Your task to perform on an android device: clear all cookies in the chrome app Image 0: 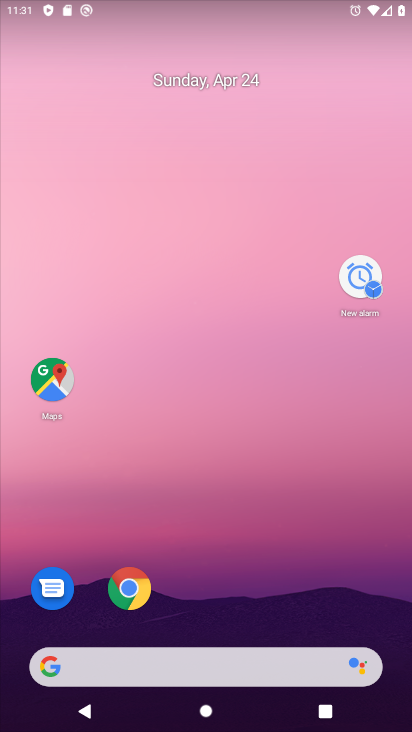
Step 0: drag from (286, 213) to (313, 109)
Your task to perform on an android device: clear all cookies in the chrome app Image 1: 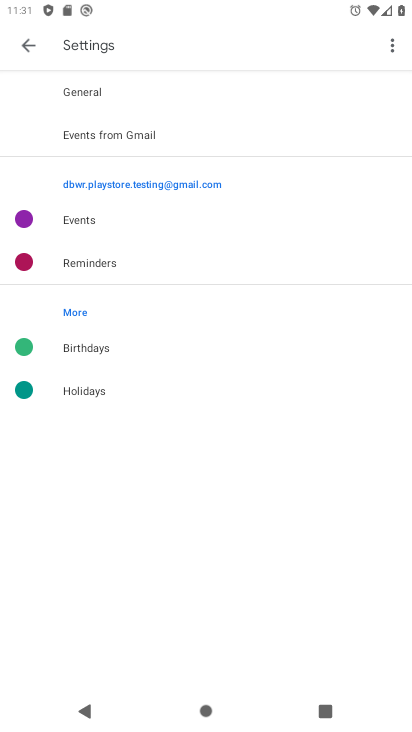
Step 1: press back button
Your task to perform on an android device: clear all cookies in the chrome app Image 2: 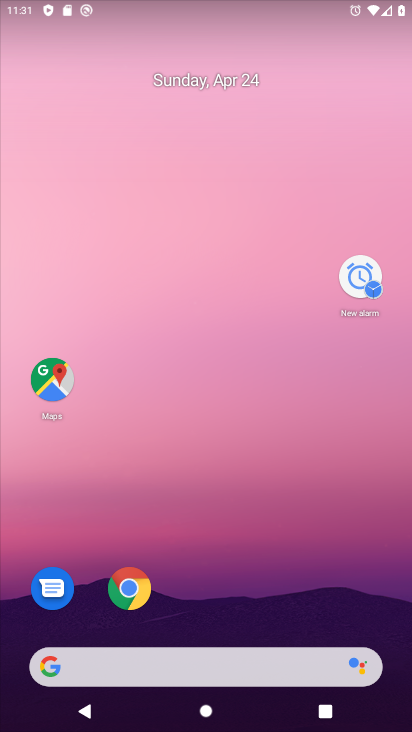
Step 2: drag from (104, 602) to (177, 144)
Your task to perform on an android device: clear all cookies in the chrome app Image 3: 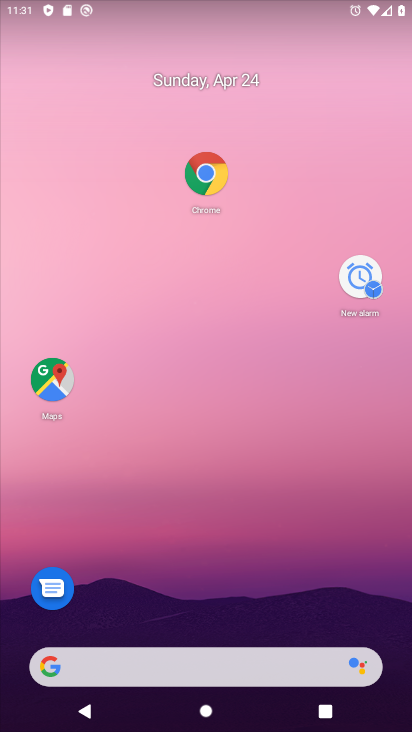
Step 3: drag from (181, 670) to (362, 10)
Your task to perform on an android device: clear all cookies in the chrome app Image 4: 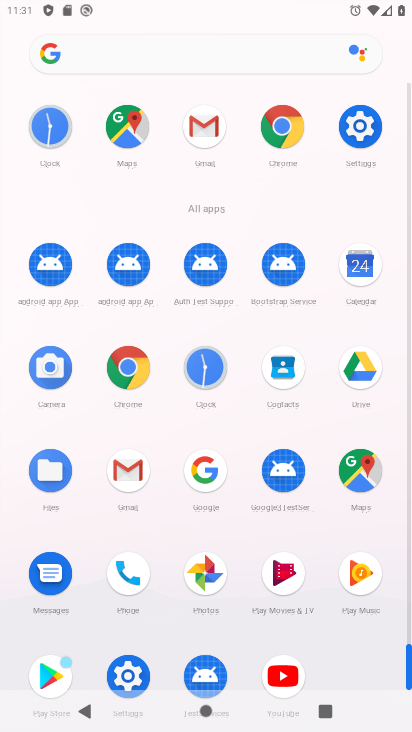
Step 4: click (133, 377)
Your task to perform on an android device: clear all cookies in the chrome app Image 5: 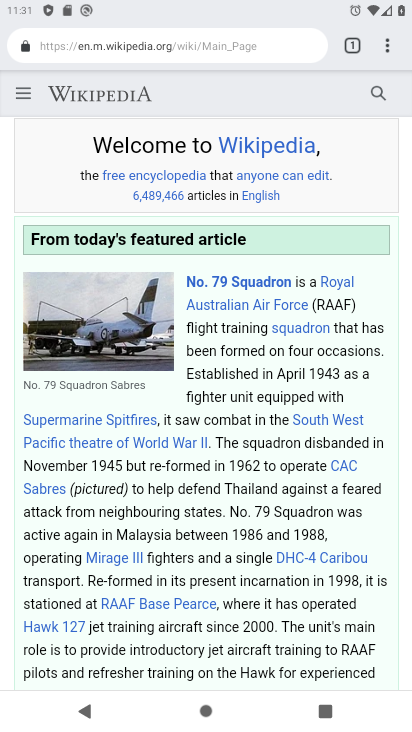
Step 5: drag from (385, 38) to (292, 590)
Your task to perform on an android device: clear all cookies in the chrome app Image 6: 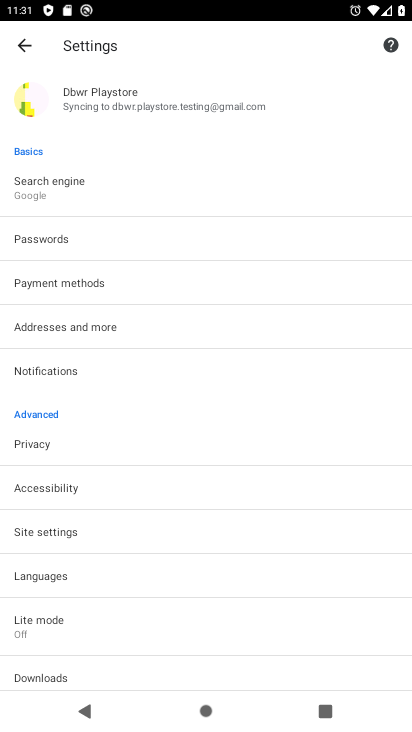
Step 6: click (227, 443)
Your task to perform on an android device: clear all cookies in the chrome app Image 7: 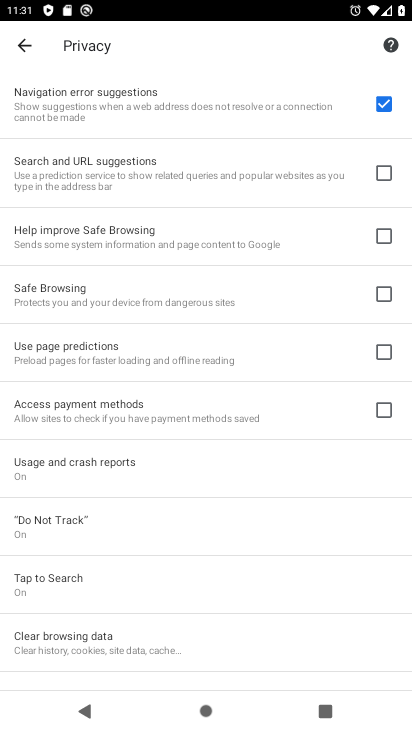
Step 7: drag from (137, 666) to (191, 452)
Your task to perform on an android device: clear all cookies in the chrome app Image 8: 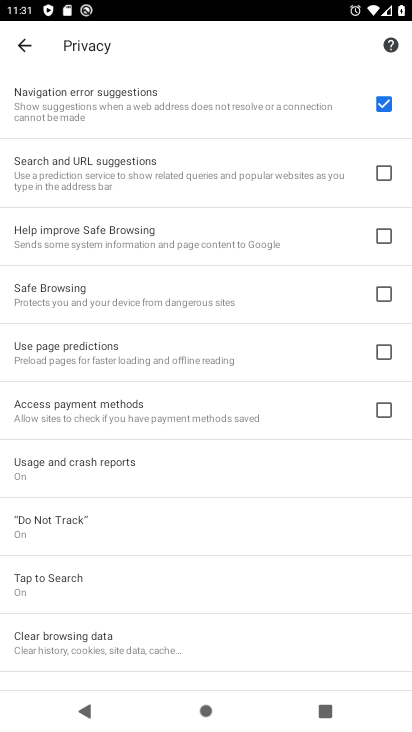
Step 8: click (161, 667)
Your task to perform on an android device: clear all cookies in the chrome app Image 9: 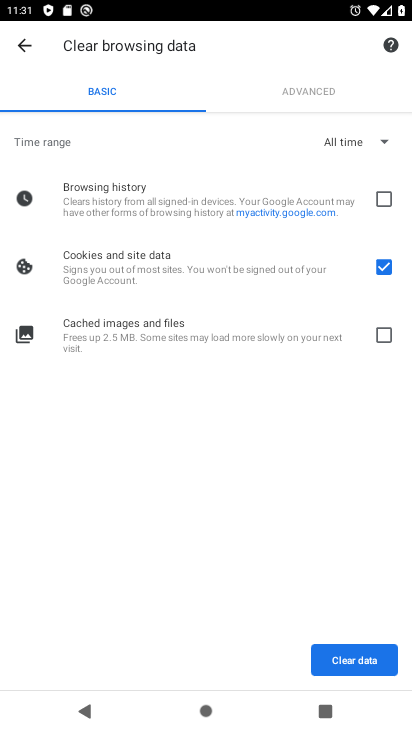
Step 9: click (369, 666)
Your task to perform on an android device: clear all cookies in the chrome app Image 10: 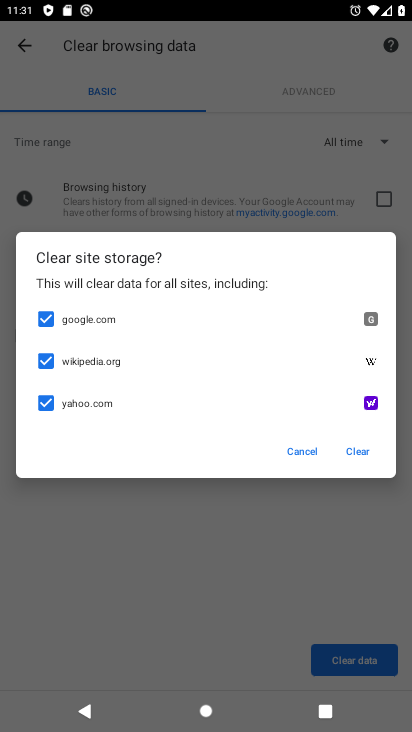
Step 10: click (368, 461)
Your task to perform on an android device: clear all cookies in the chrome app Image 11: 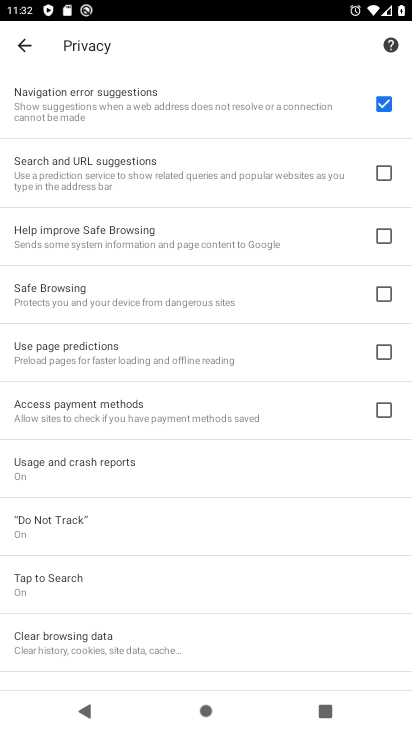
Step 11: task complete